Your task to perform on an android device: Go to accessibility settings Image 0: 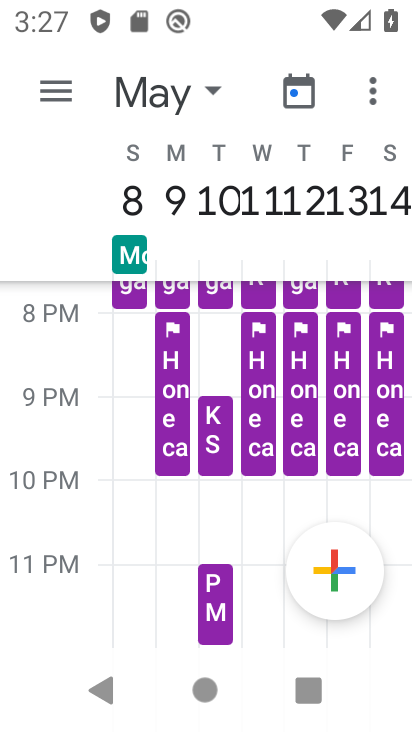
Step 0: press home button
Your task to perform on an android device: Go to accessibility settings Image 1: 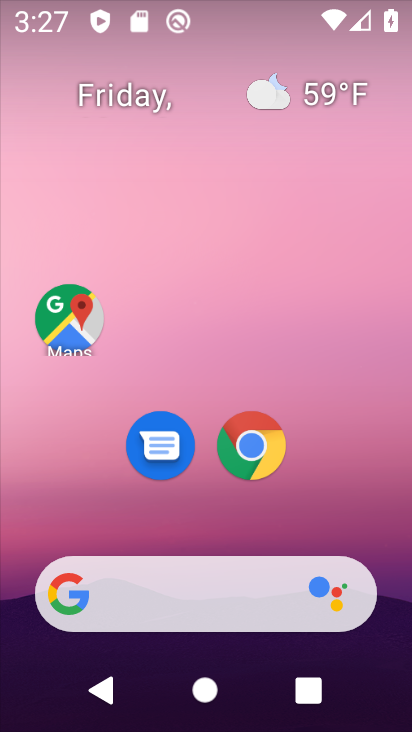
Step 1: drag from (394, 580) to (237, 0)
Your task to perform on an android device: Go to accessibility settings Image 2: 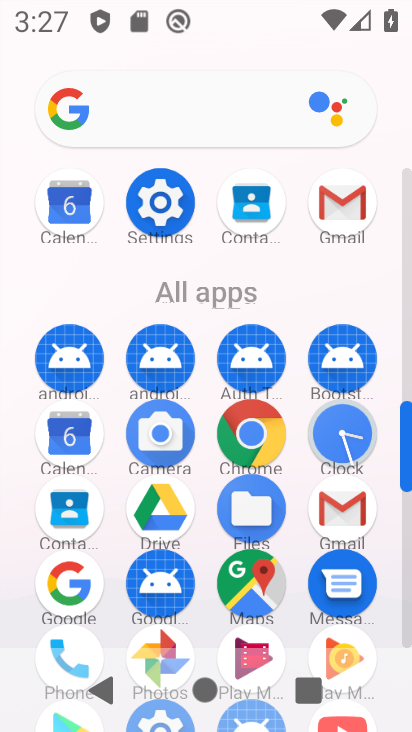
Step 2: click (406, 629)
Your task to perform on an android device: Go to accessibility settings Image 3: 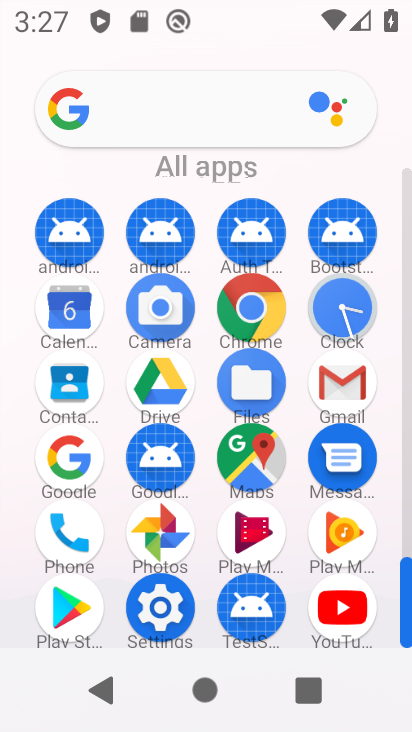
Step 3: click (162, 604)
Your task to perform on an android device: Go to accessibility settings Image 4: 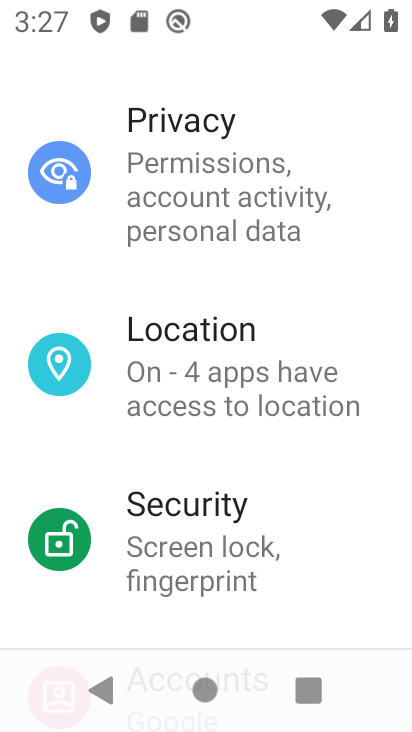
Step 4: drag from (265, 414) to (242, 43)
Your task to perform on an android device: Go to accessibility settings Image 5: 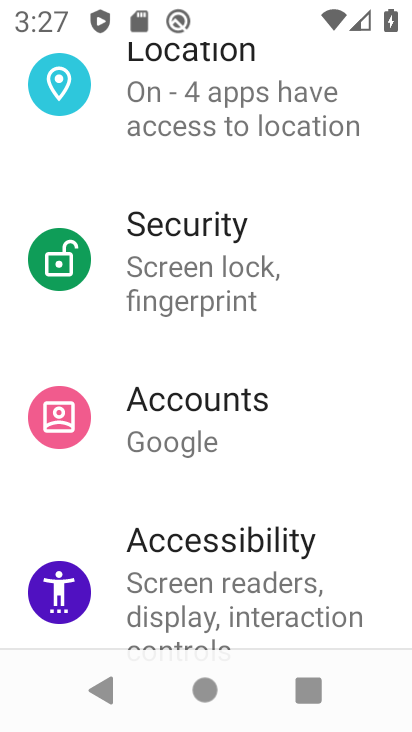
Step 5: click (206, 569)
Your task to perform on an android device: Go to accessibility settings Image 6: 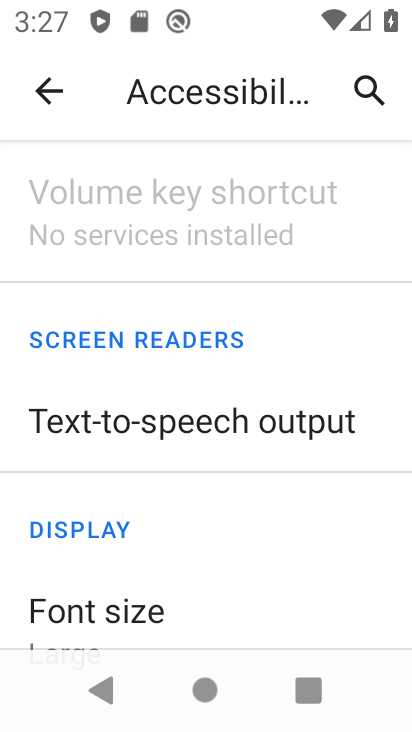
Step 6: task complete